Your task to perform on an android device: search for starred emails in the gmail app Image 0: 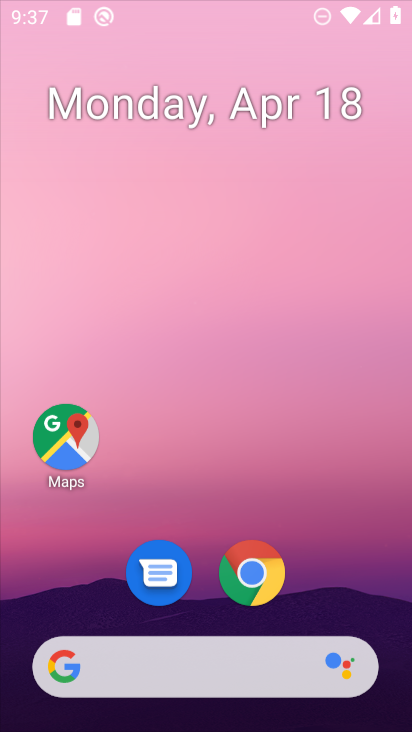
Step 0: drag from (257, 170) to (211, 57)
Your task to perform on an android device: search for starred emails in the gmail app Image 1: 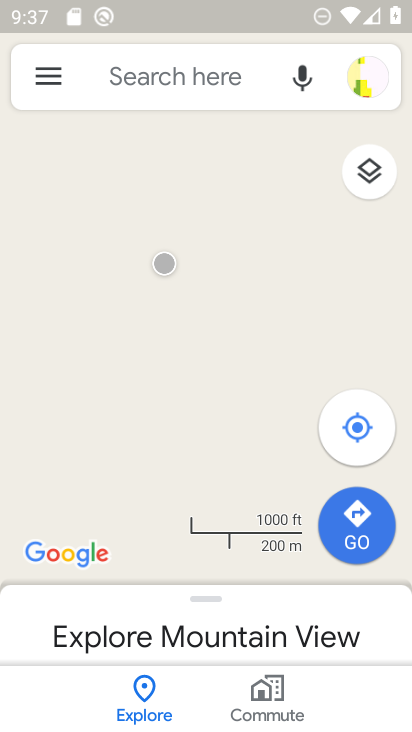
Step 1: press home button
Your task to perform on an android device: search for starred emails in the gmail app Image 2: 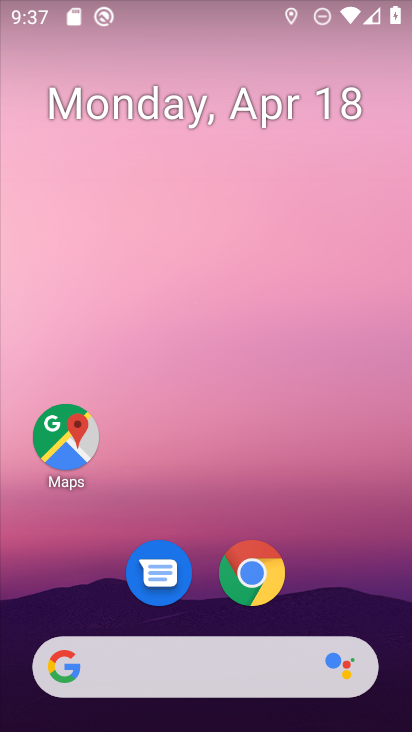
Step 2: drag from (365, 590) to (172, 17)
Your task to perform on an android device: search for starred emails in the gmail app Image 3: 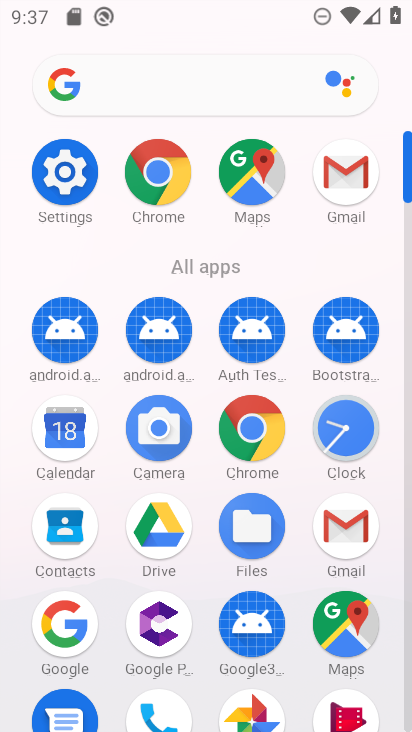
Step 3: click (357, 535)
Your task to perform on an android device: search for starred emails in the gmail app Image 4: 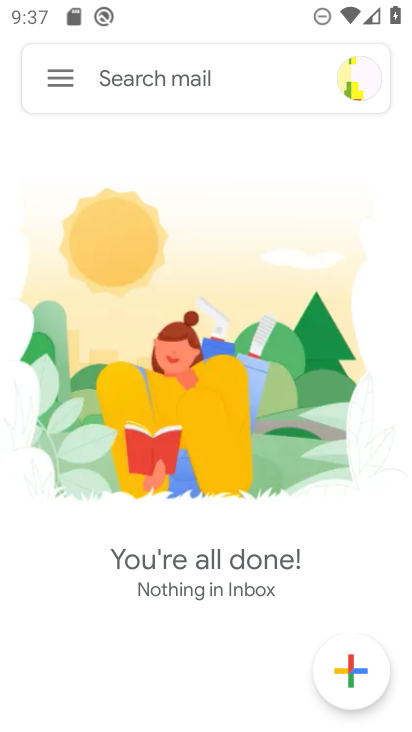
Step 4: click (46, 74)
Your task to perform on an android device: search for starred emails in the gmail app Image 5: 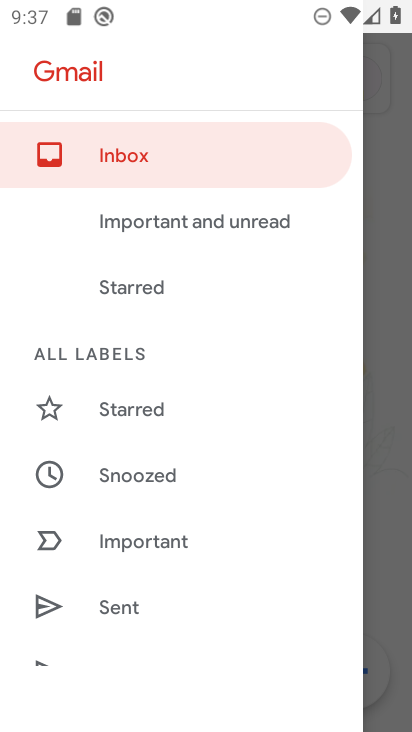
Step 5: click (173, 411)
Your task to perform on an android device: search for starred emails in the gmail app Image 6: 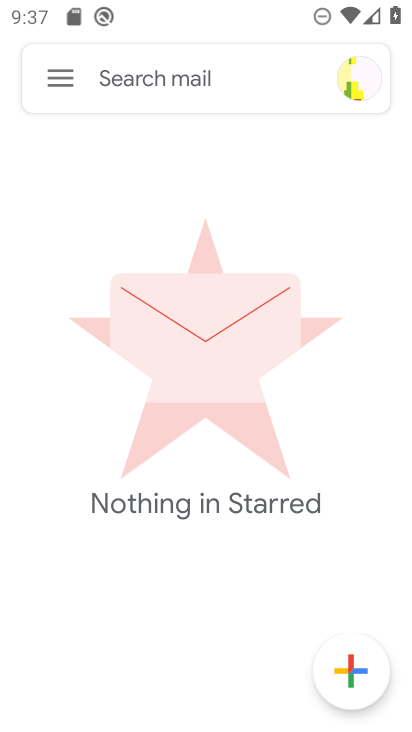
Step 6: task complete